Your task to perform on an android device: toggle notifications settings in the gmail app Image 0: 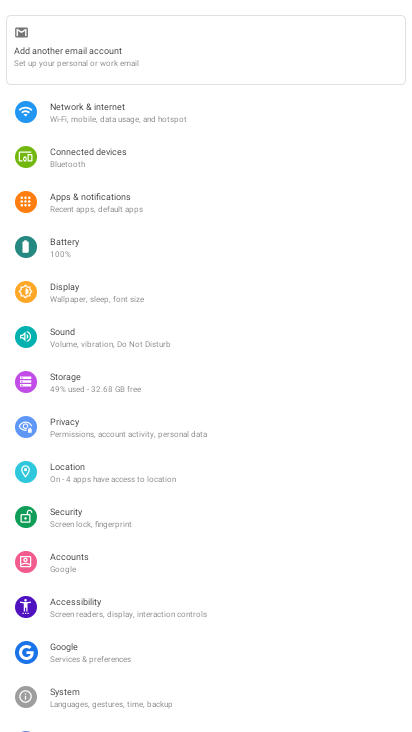
Step 0: click (7, 284)
Your task to perform on an android device: toggle notifications settings in the gmail app Image 1: 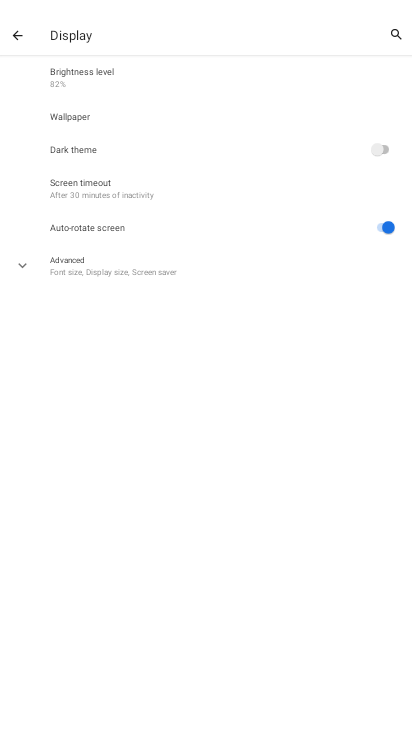
Step 1: press home button
Your task to perform on an android device: toggle notifications settings in the gmail app Image 2: 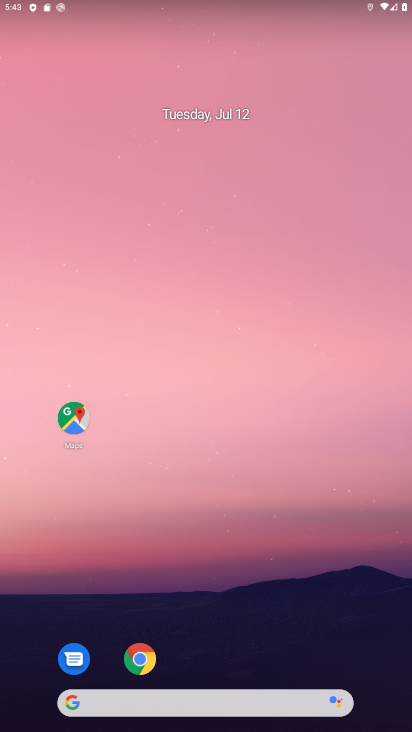
Step 2: drag from (217, 656) to (212, 3)
Your task to perform on an android device: toggle notifications settings in the gmail app Image 3: 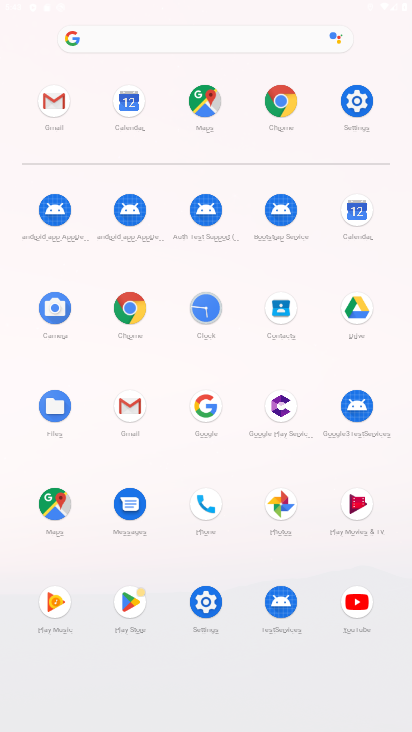
Step 3: click (129, 411)
Your task to perform on an android device: toggle notifications settings in the gmail app Image 4: 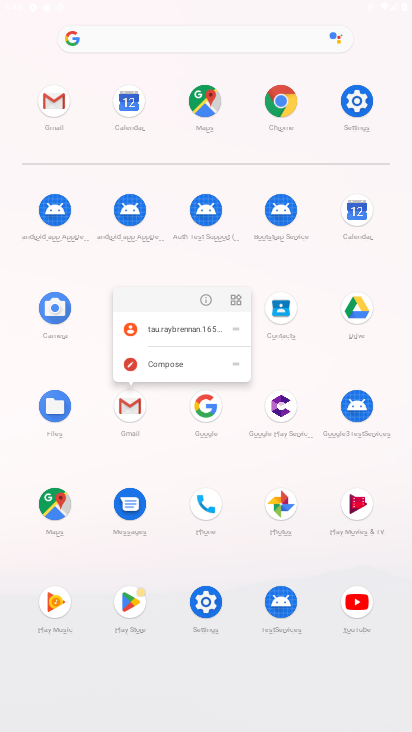
Step 4: click (133, 408)
Your task to perform on an android device: toggle notifications settings in the gmail app Image 5: 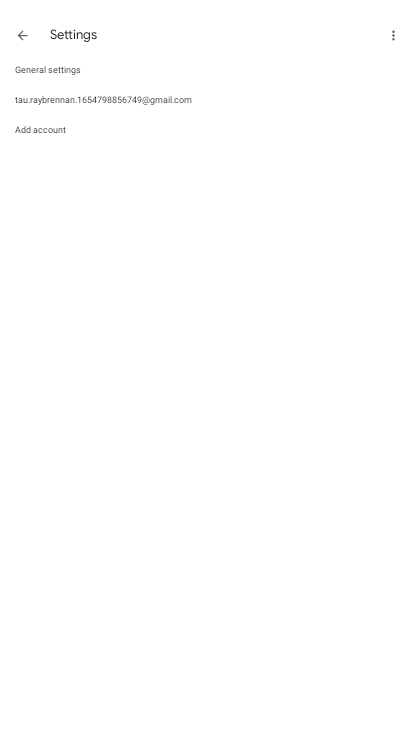
Step 5: click (65, 71)
Your task to perform on an android device: toggle notifications settings in the gmail app Image 6: 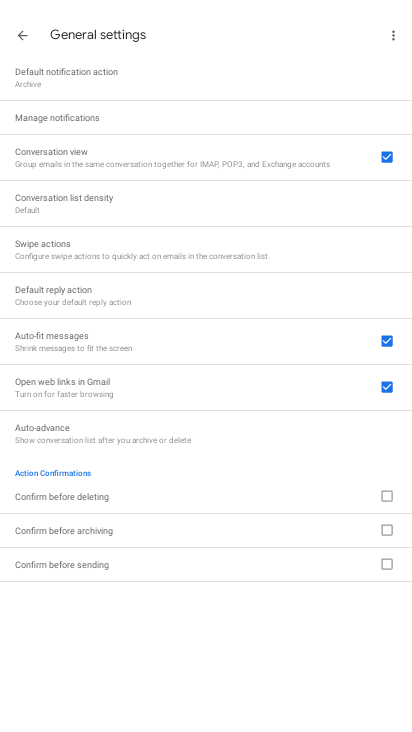
Step 6: click (75, 119)
Your task to perform on an android device: toggle notifications settings in the gmail app Image 7: 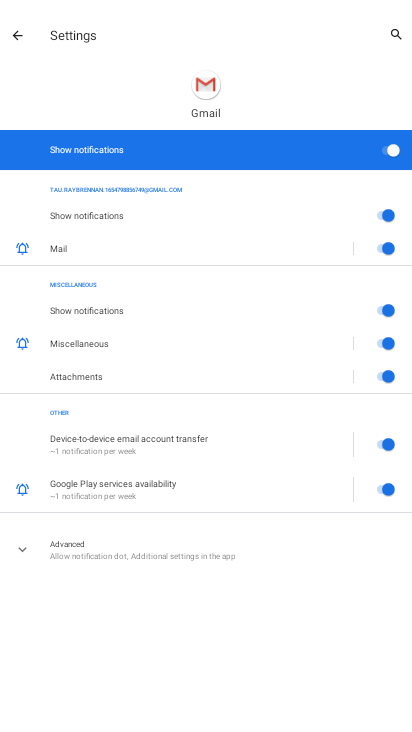
Step 7: click (381, 147)
Your task to perform on an android device: toggle notifications settings in the gmail app Image 8: 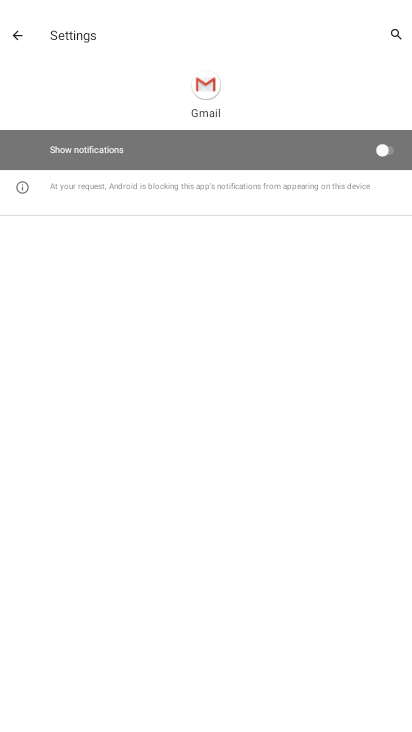
Step 8: task complete